Your task to perform on an android device: Open maps Image 0: 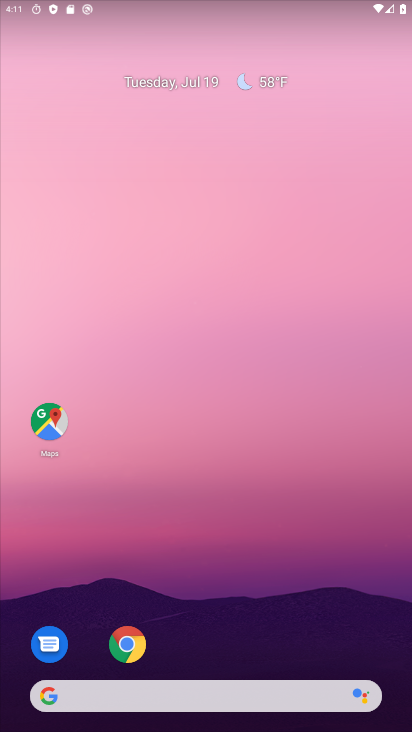
Step 0: drag from (345, 604) to (243, 112)
Your task to perform on an android device: Open maps Image 1: 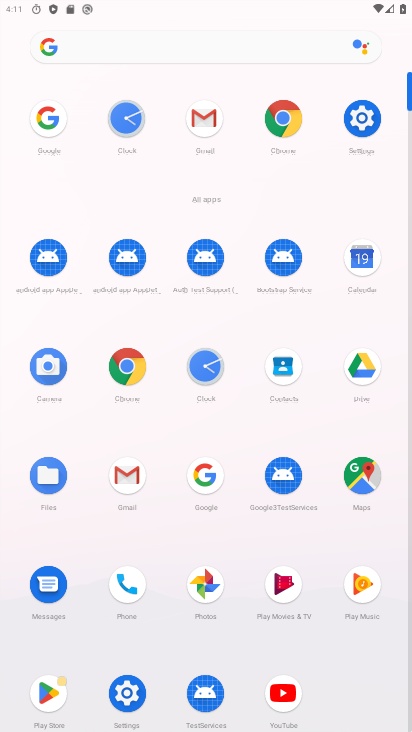
Step 1: click (357, 480)
Your task to perform on an android device: Open maps Image 2: 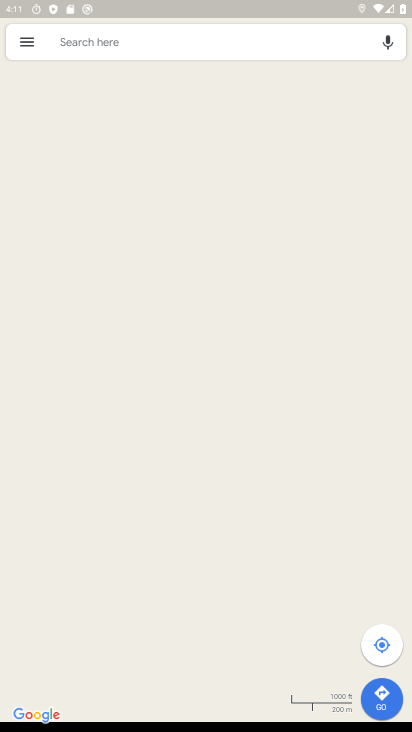
Step 2: task complete